Your task to perform on an android device: set default search engine in the chrome app Image 0: 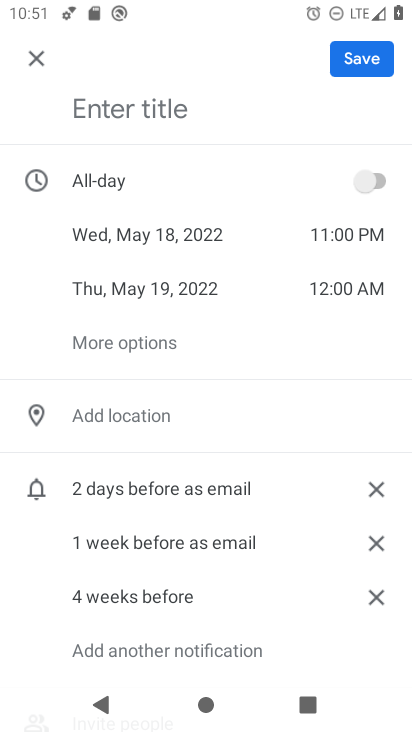
Step 0: press home button
Your task to perform on an android device: set default search engine in the chrome app Image 1: 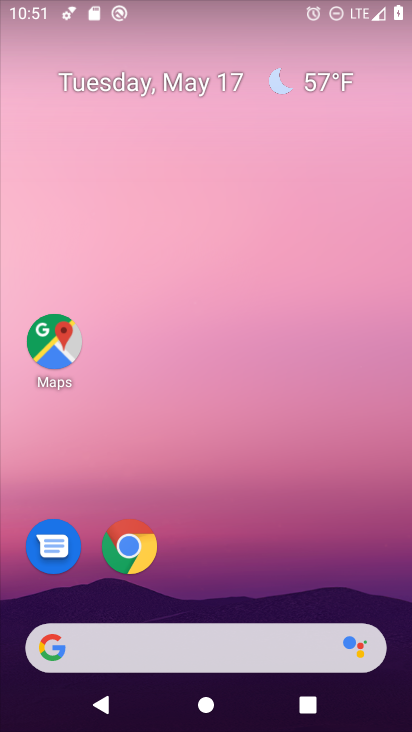
Step 1: click (138, 553)
Your task to perform on an android device: set default search engine in the chrome app Image 2: 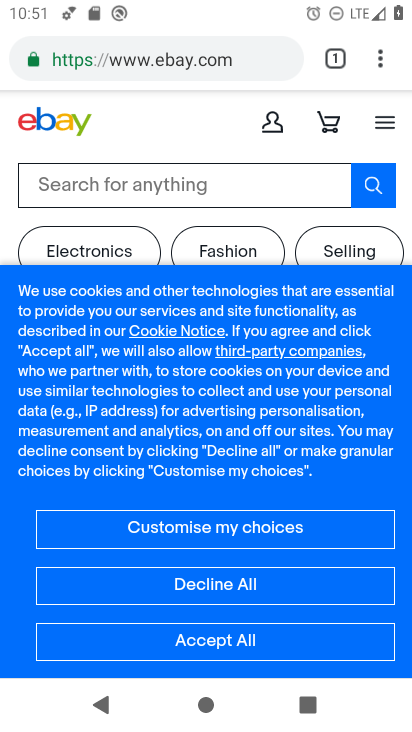
Step 2: click (382, 58)
Your task to perform on an android device: set default search engine in the chrome app Image 3: 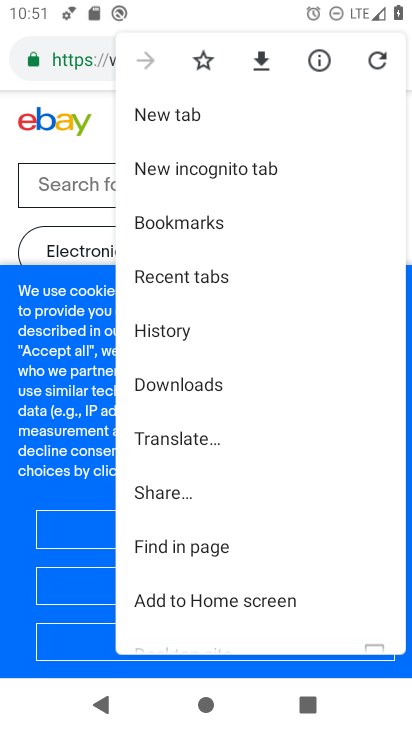
Step 3: drag from (278, 545) to (288, 296)
Your task to perform on an android device: set default search engine in the chrome app Image 4: 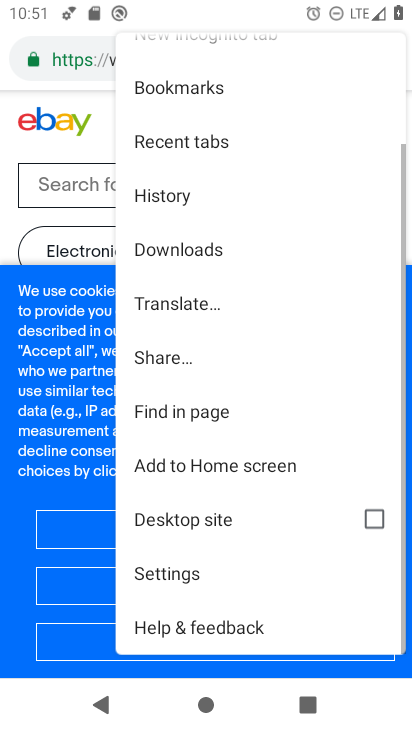
Step 4: click (162, 581)
Your task to perform on an android device: set default search engine in the chrome app Image 5: 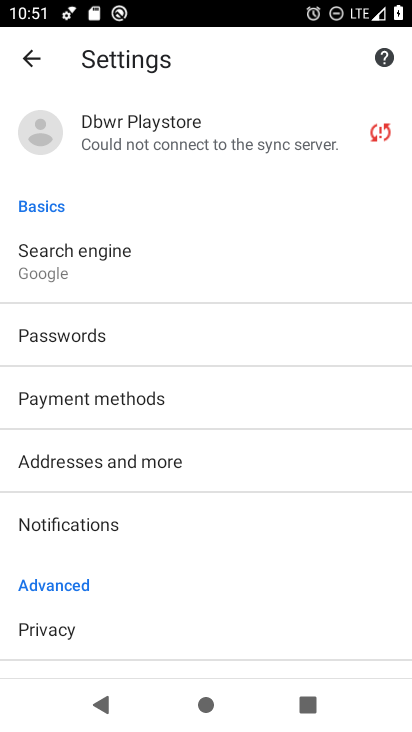
Step 5: click (57, 262)
Your task to perform on an android device: set default search engine in the chrome app Image 6: 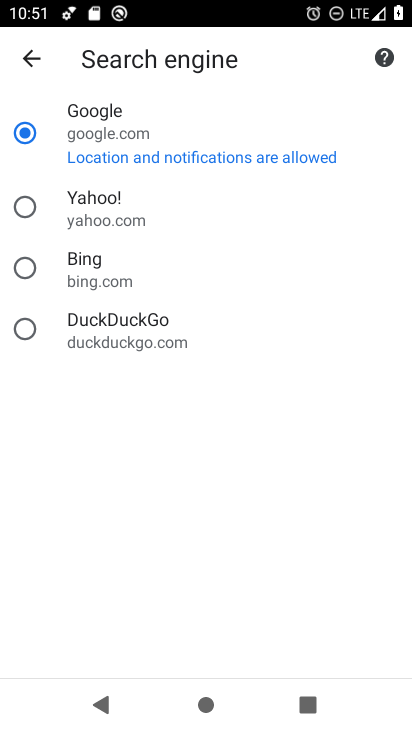
Step 6: click (29, 205)
Your task to perform on an android device: set default search engine in the chrome app Image 7: 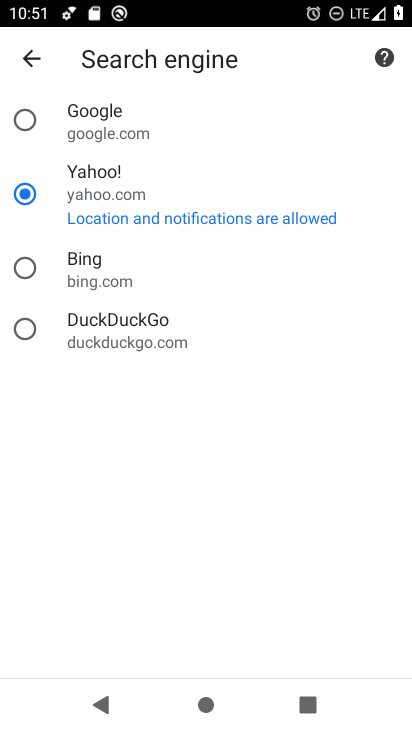
Step 7: task complete